Your task to perform on an android device: Search for flights from Buenos aires to Tokyo Image 0: 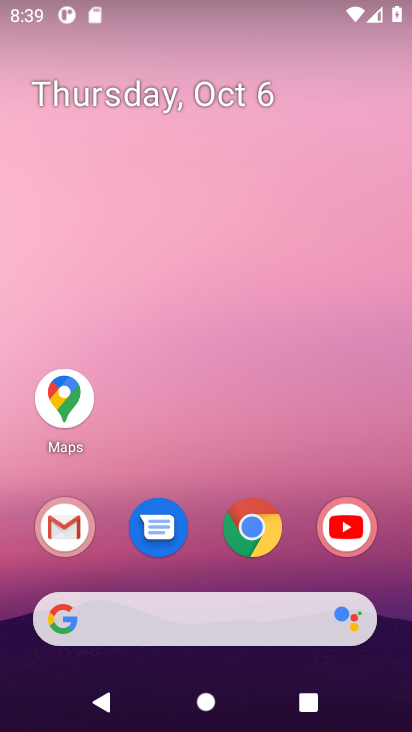
Step 0: drag from (178, 390) to (203, 13)
Your task to perform on an android device: Search for flights from Buenos aires to Tokyo Image 1: 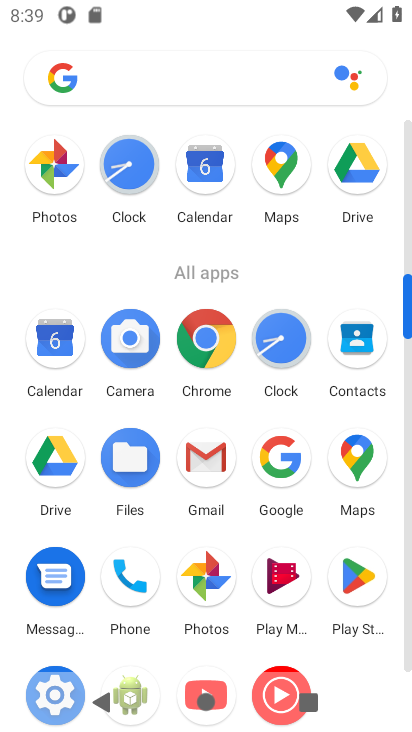
Step 1: click (198, 349)
Your task to perform on an android device: Search for flights from Buenos aires to Tokyo Image 2: 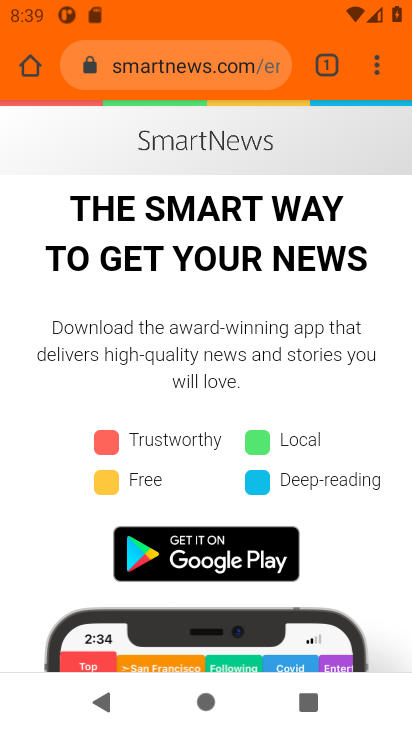
Step 2: click (189, 65)
Your task to perform on an android device: Search for flights from Buenos aires to Tokyo Image 3: 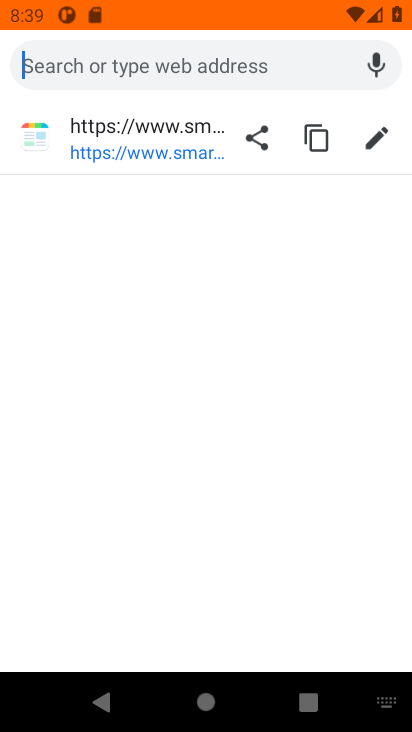
Step 3: type " flights from Buenos aires to Tokyo"
Your task to perform on an android device: Search for flights from Buenos aires to Tokyo Image 4: 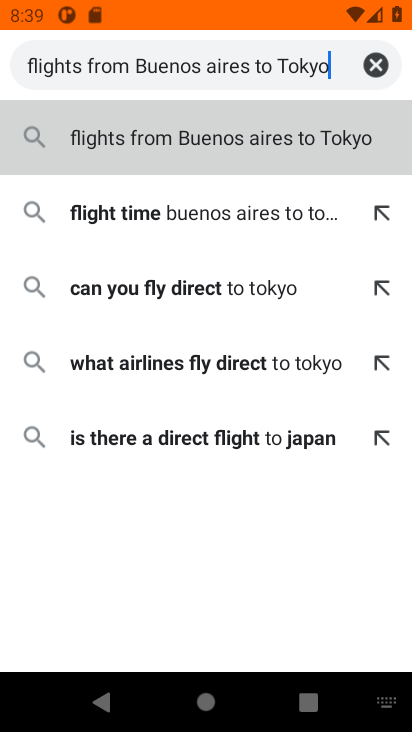
Step 4: click (203, 152)
Your task to perform on an android device: Search for flights from Buenos aires to Tokyo Image 5: 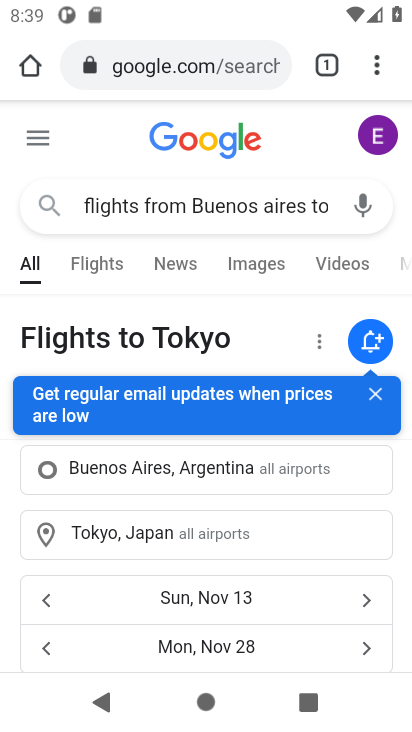
Step 5: task complete